Your task to perform on an android device: check android version Image 0: 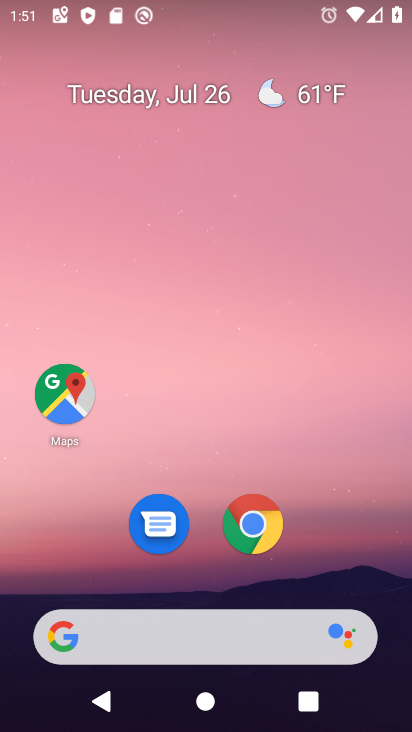
Step 0: press home button
Your task to perform on an android device: check android version Image 1: 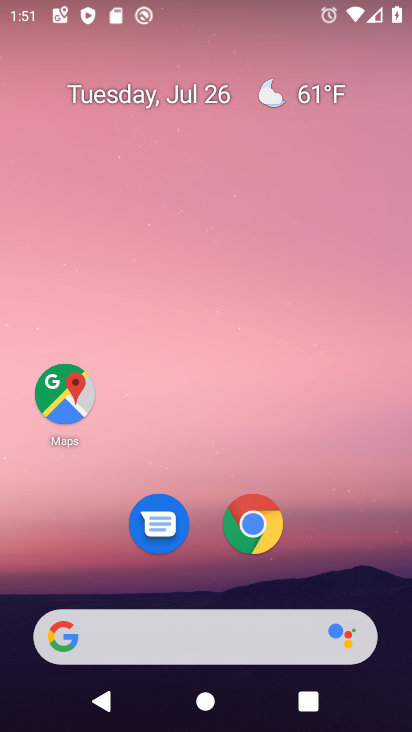
Step 1: drag from (146, 648) to (310, 101)
Your task to perform on an android device: check android version Image 2: 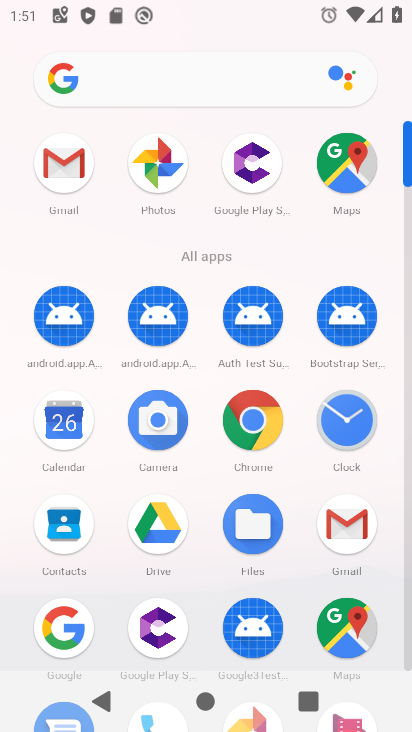
Step 2: drag from (214, 573) to (309, 154)
Your task to perform on an android device: check android version Image 3: 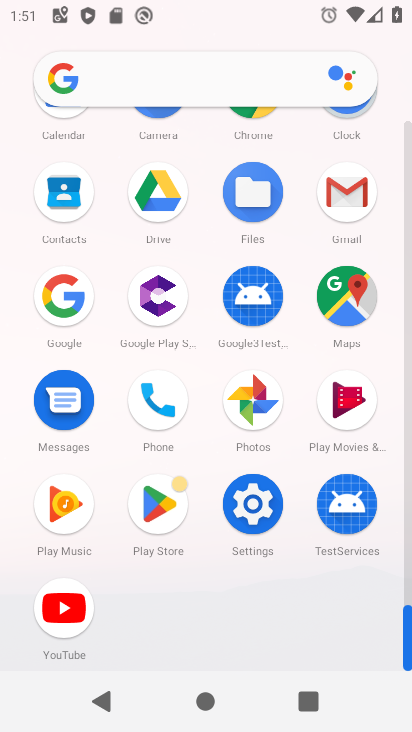
Step 3: click (259, 502)
Your task to perform on an android device: check android version Image 4: 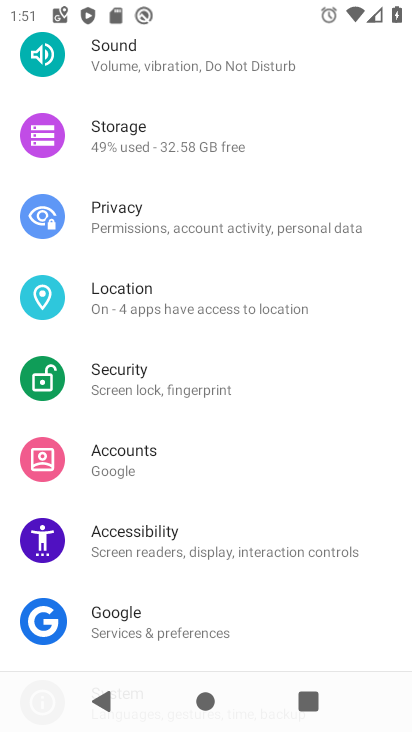
Step 4: drag from (305, 111) to (291, 568)
Your task to perform on an android device: check android version Image 5: 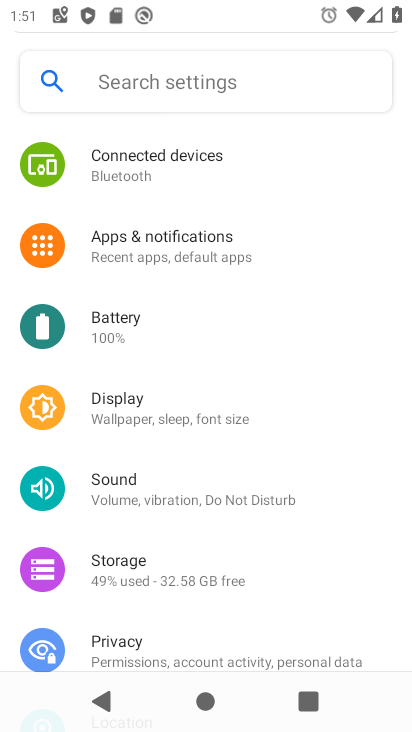
Step 5: drag from (291, 197) to (261, 586)
Your task to perform on an android device: check android version Image 6: 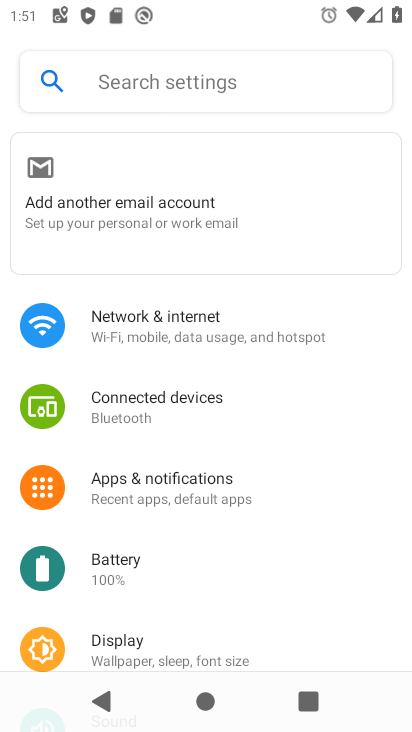
Step 6: drag from (262, 596) to (330, 96)
Your task to perform on an android device: check android version Image 7: 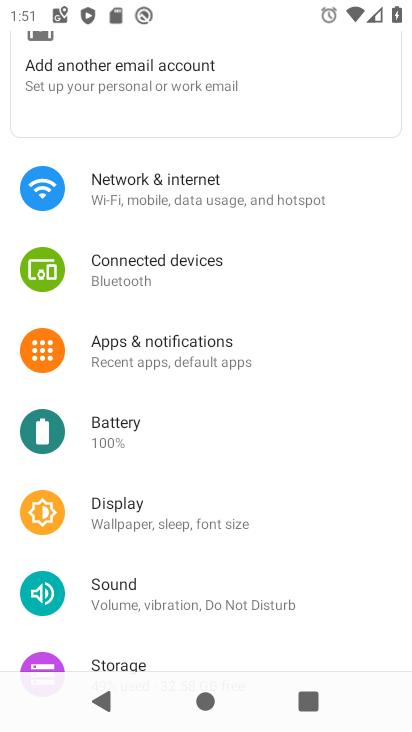
Step 7: drag from (265, 608) to (372, 116)
Your task to perform on an android device: check android version Image 8: 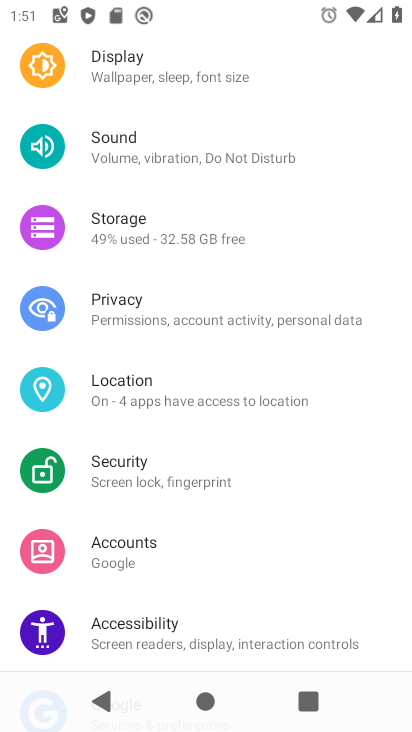
Step 8: drag from (256, 570) to (346, 106)
Your task to perform on an android device: check android version Image 9: 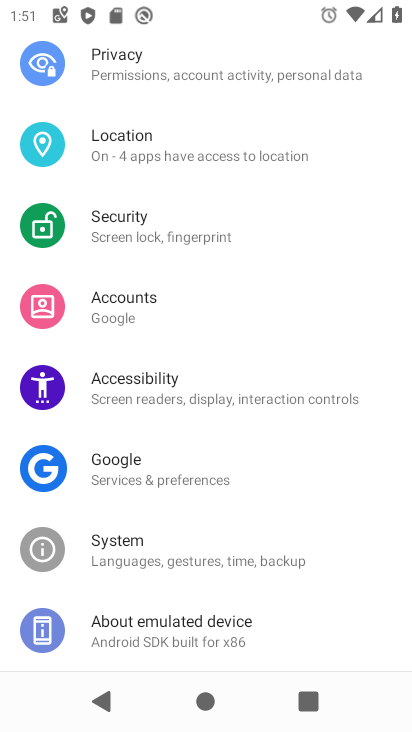
Step 9: drag from (308, 629) to (324, 220)
Your task to perform on an android device: check android version Image 10: 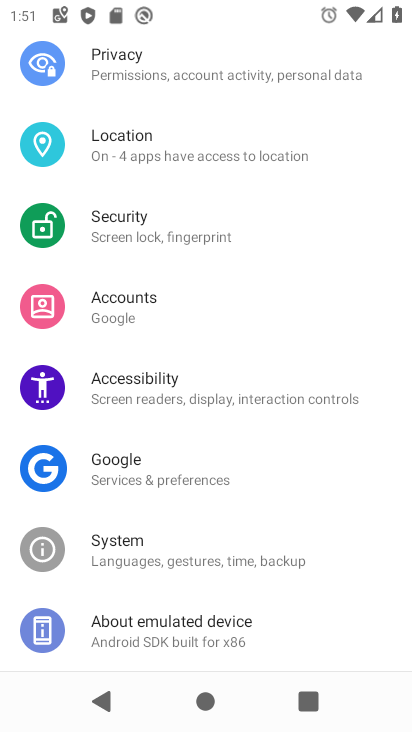
Step 10: click (202, 641)
Your task to perform on an android device: check android version Image 11: 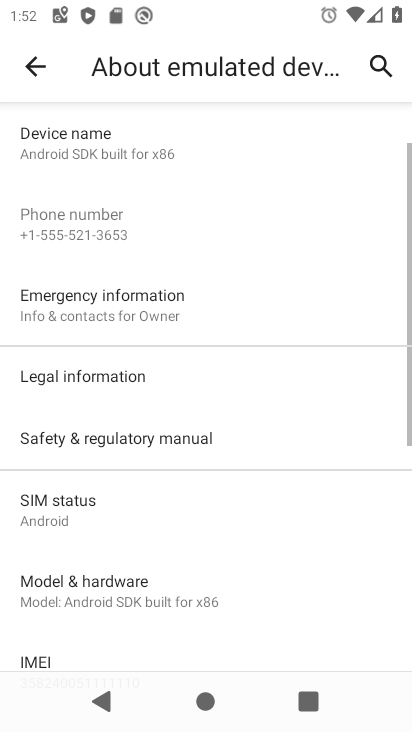
Step 11: drag from (243, 654) to (316, 138)
Your task to perform on an android device: check android version Image 12: 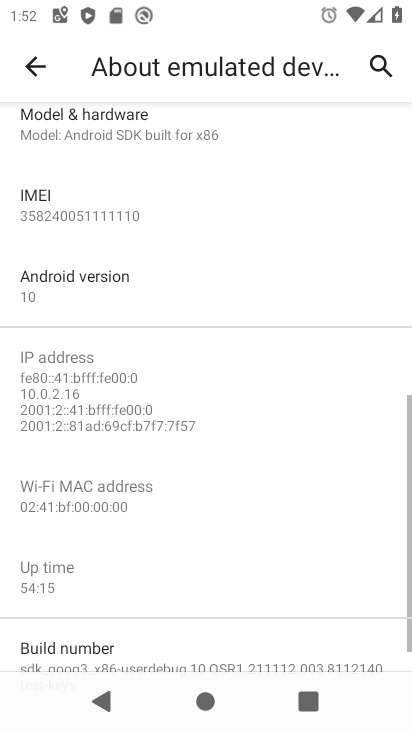
Step 12: click (86, 275)
Your task to perform on an android device: check android version Image 13: 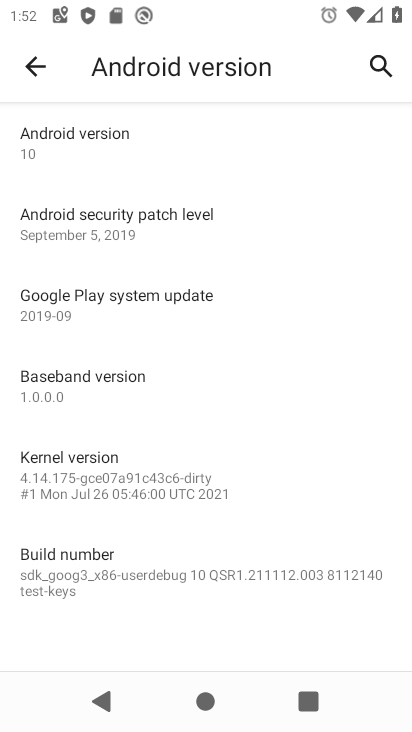
Step 13: task complete